Your task to perform on an android device: set the timer Image 0: 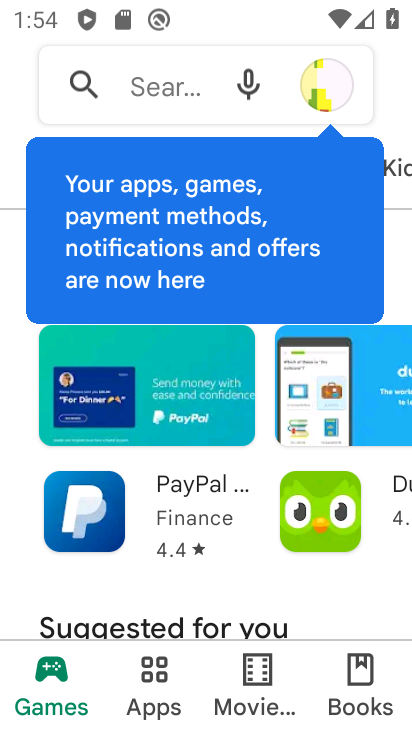
Step 0: press home button
Your task to perform on an android device: set the timer Image 1: 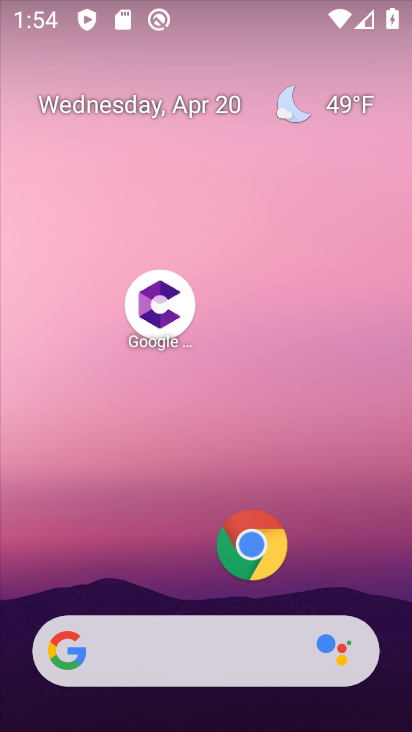
Step 1: drag from (157, 553) to (198, 41)
Your task to perform on an android device: set the timer Image 2: 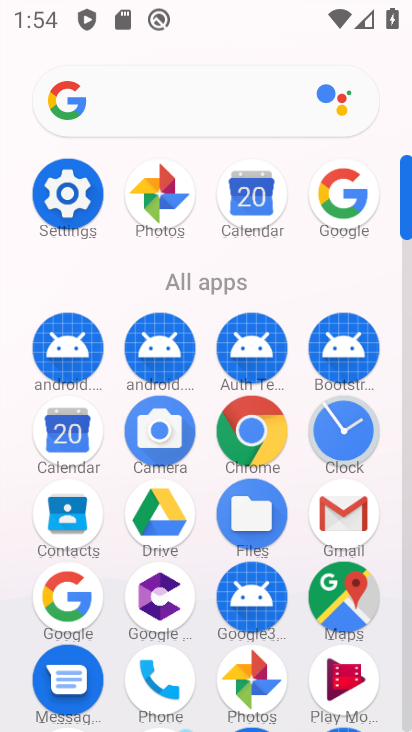
Step 2: click (348, 431)
Your task to perform on an android device: set the timer Image 3: 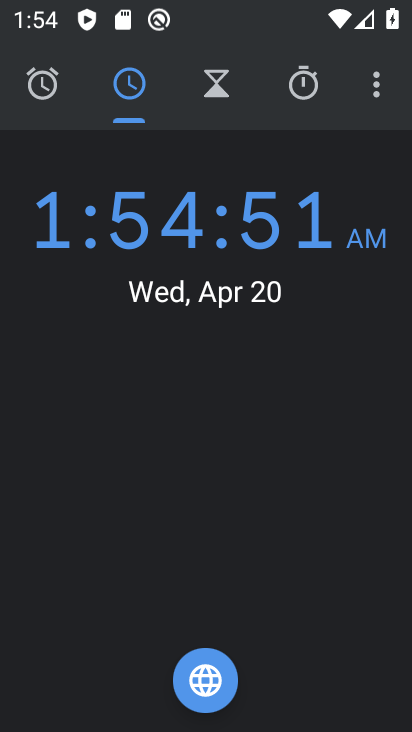
Step 3: click (218, 87)
Your task to perform on an android device: set the timer Image 4: 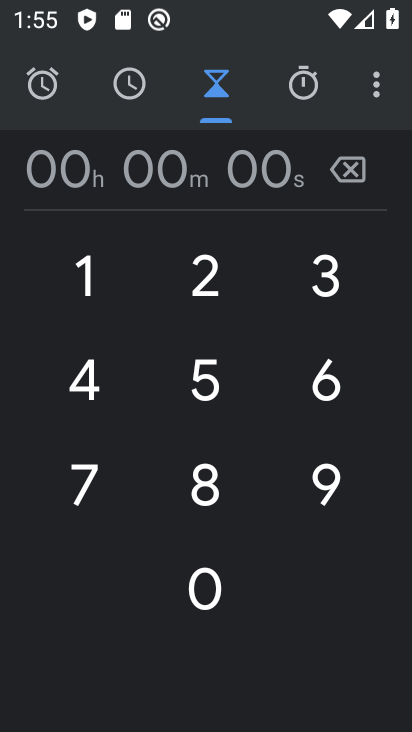
Step 4: type "123"
Your task to perform on an android device: set the timer Image 5: 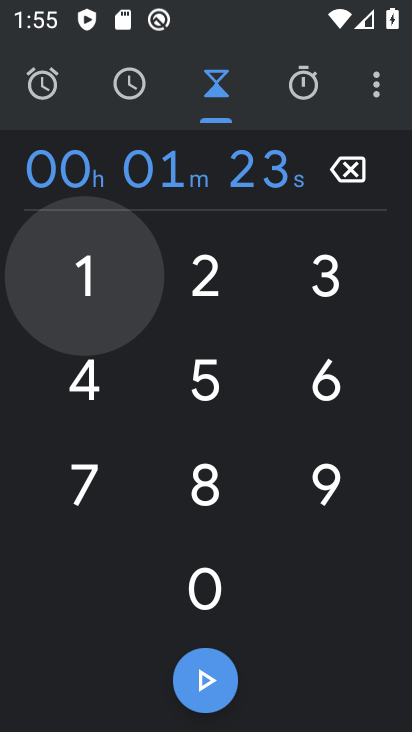
Step 5: task complete